Your task to perform on an android device: read, delete, or share a saved page in the chrome app Image 0: 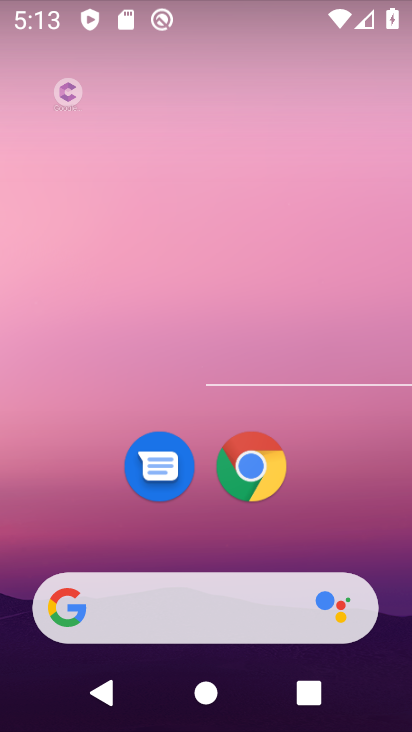
Step 0: click (237, 463)
Your task to perform on an android device: read, delete, or share a saved page in the chrome app Image 1: 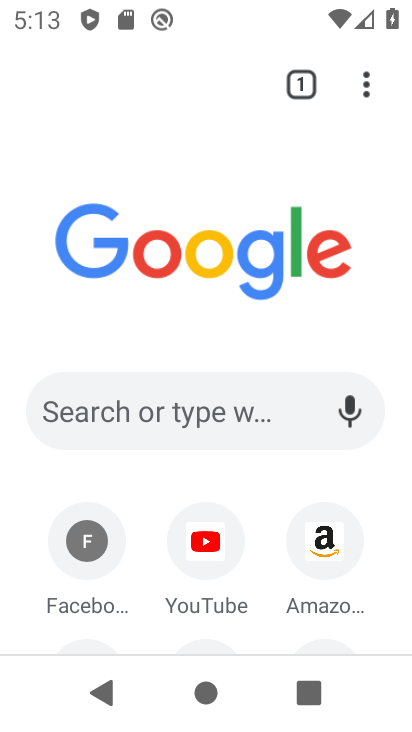
Step 1: click (312, 541)
Your task to perform on an android device: read, delete, or share a saved page in the chrome app Image 2: 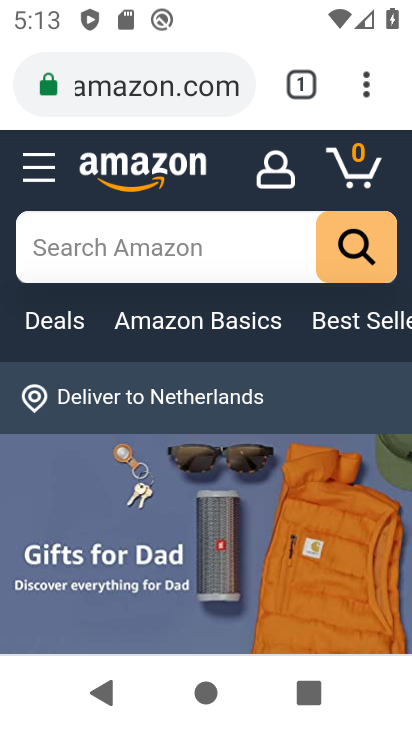
Step 2: drag from (262, 514) to (270, 243)
Your task to perform on an android device: read, delete, or share a saved page in the chrome app Image 3: 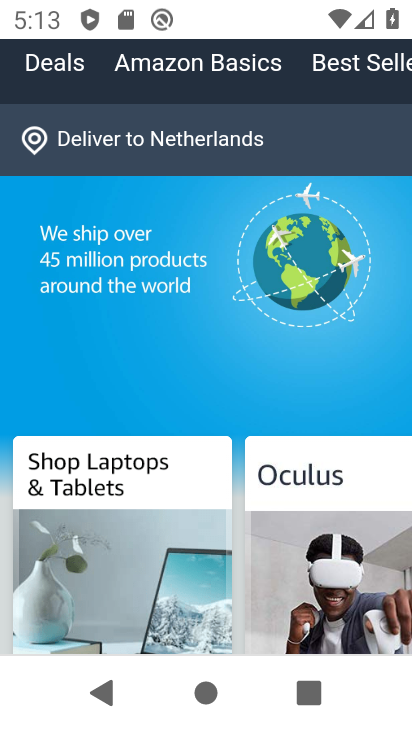
Step 3: drag from (199, 578) to (239, 324)
Your task to perform on an android device: read, delete, or share a saved page in the chrome app Image 4: 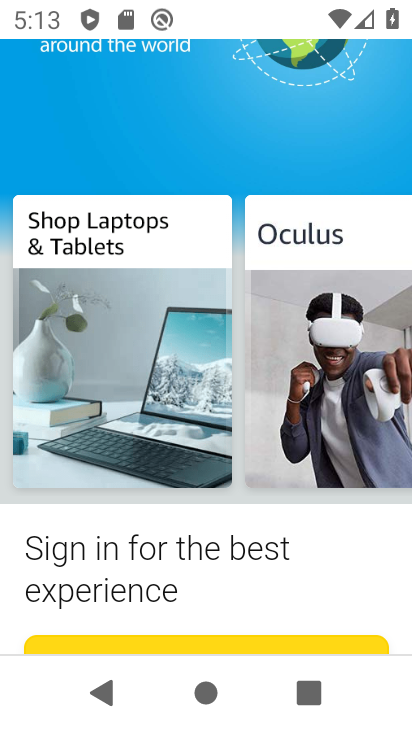
Step 4: drag from (293, 165) to (241, 586)
Your task to perform on an android device: read, delete, or share a saved page in the chrome app Image 5: 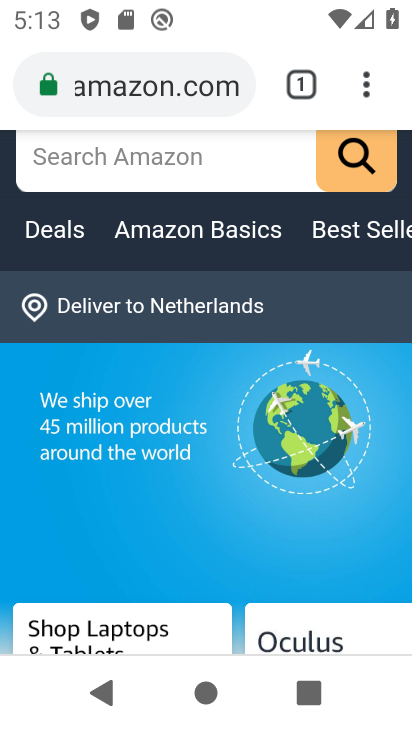
Step 5: drag from (365, 82) to (137, 93)
Your task to perform on an android device: read, delete, or share a saved page in the chrome app Image 6: 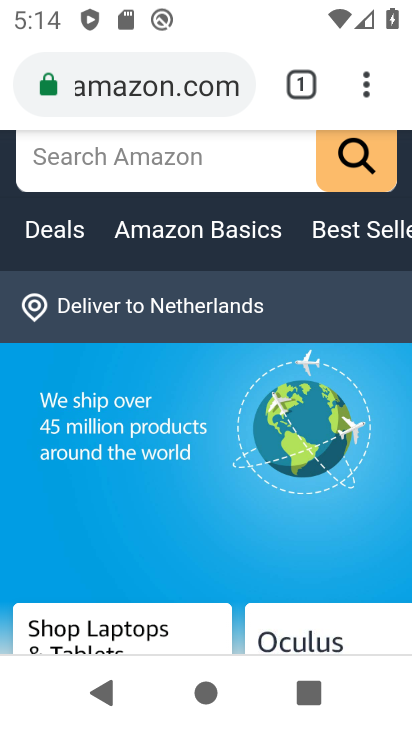
Step 6: drag from (373, 95) to (138, 95)
Your task to perform on an android device: read, delete, or share a saved page in the chrome app Image 7: 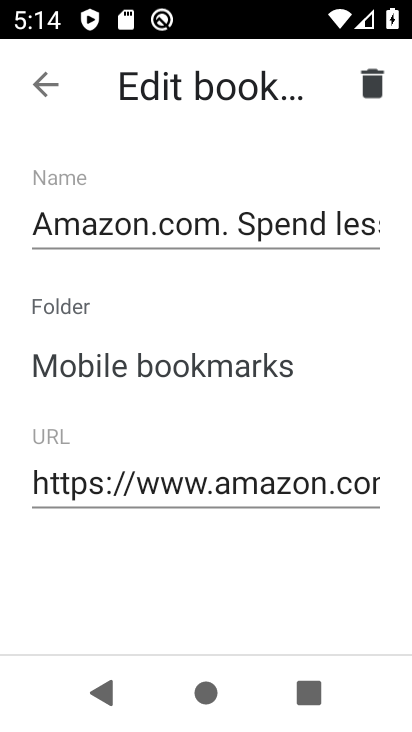
Step 7: click (369, 91)
Your task to perform on an android device: read, delete, or share a saved page in the chrome app Image 8: 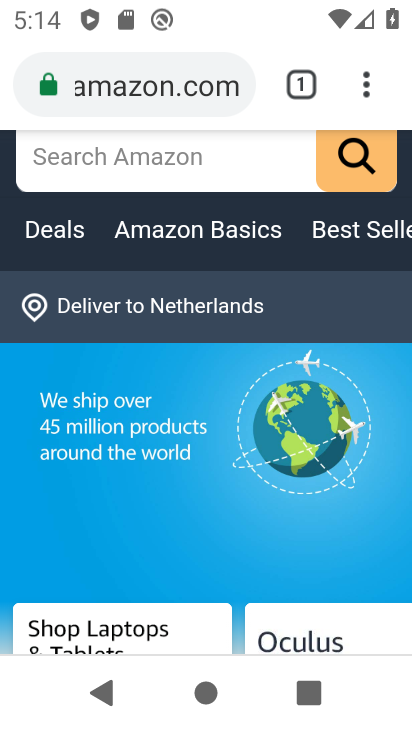
Step 8: task complete